Your task to perform on an android device: Open my contact list Image 0: 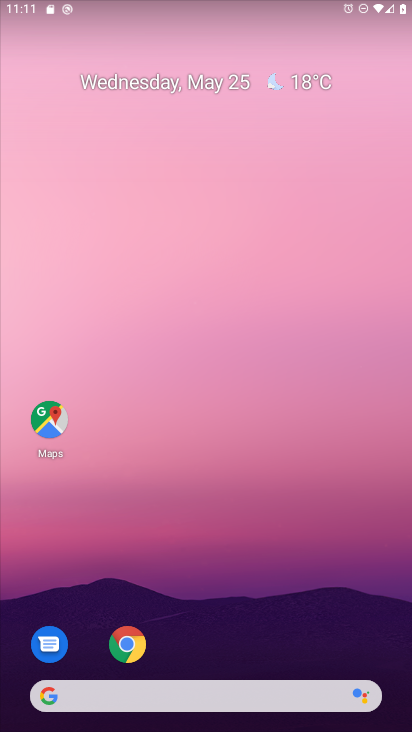
Step 0: press home button
Your task to perform on an android device: Open my contact list Image 1: 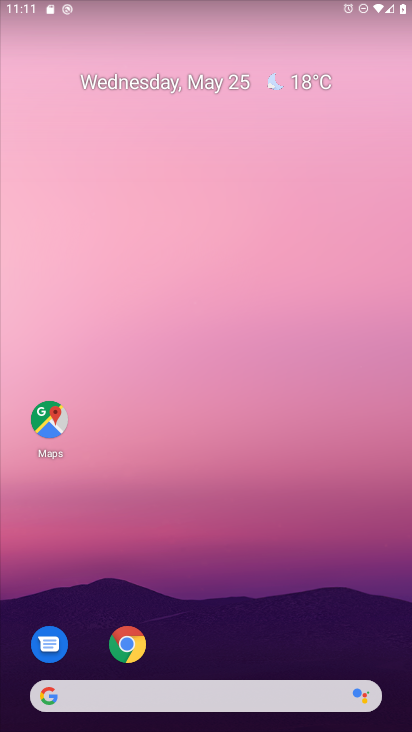
Step 1: drag from (216, 658) to (280, 78)
Your task to perform on an android device: Open my contact list Image 2: 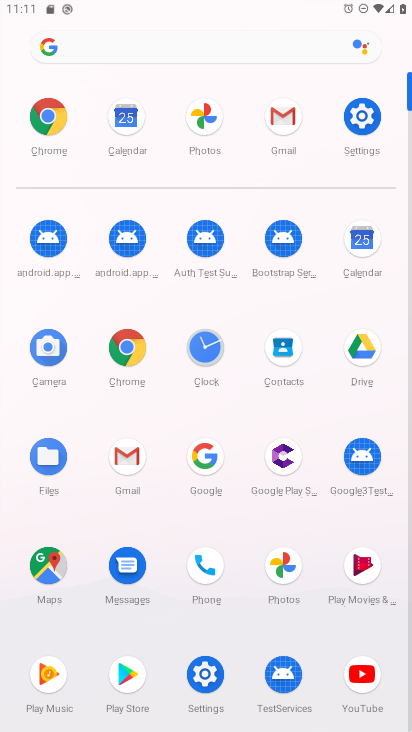
Step 2: click (281, 343)
Your task to perform on an android device: Open my contact list Image 3: 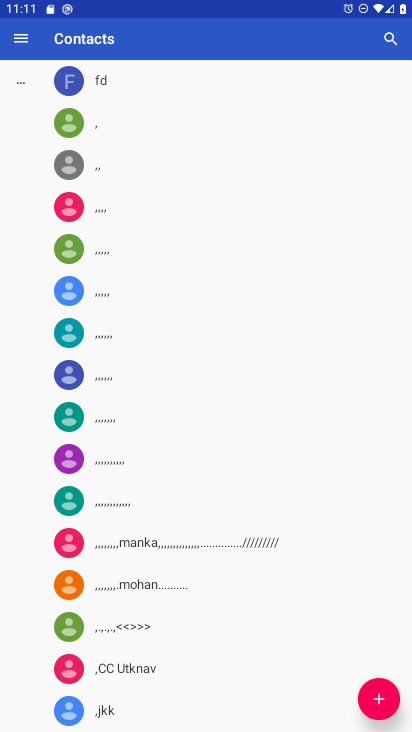
Step 3: task complete